Your task to perform on an android device: turn on wifi Image 0: 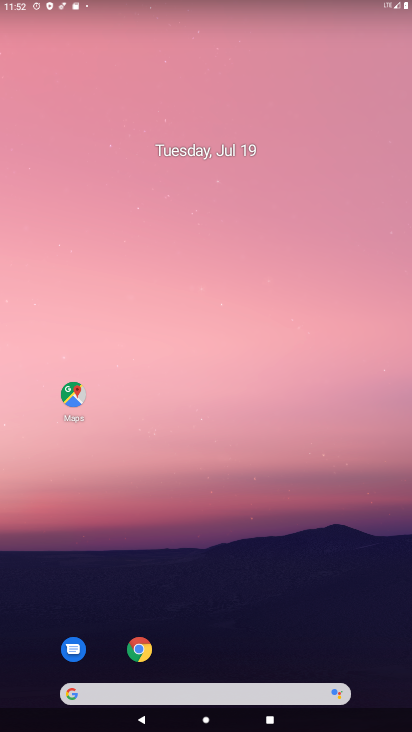
Step 0: drag from (222, 730) to (213, 367)
Your task to perform on an android device: turn on wifi Image 1: 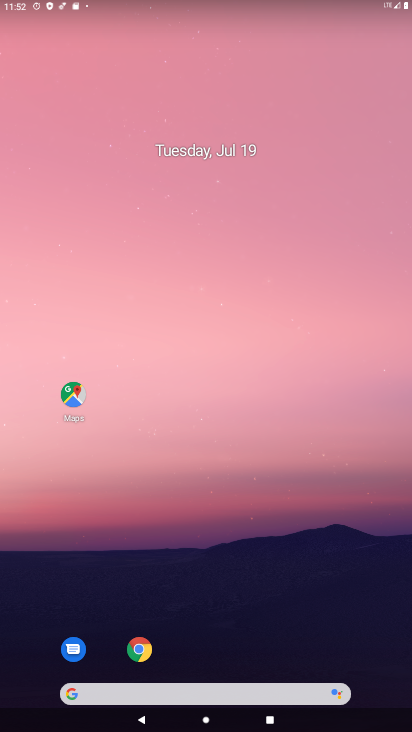
Step 1: drag from (234, 724) to (222, 185)
Your task to perform on an android device: turn on wifi Image 2: 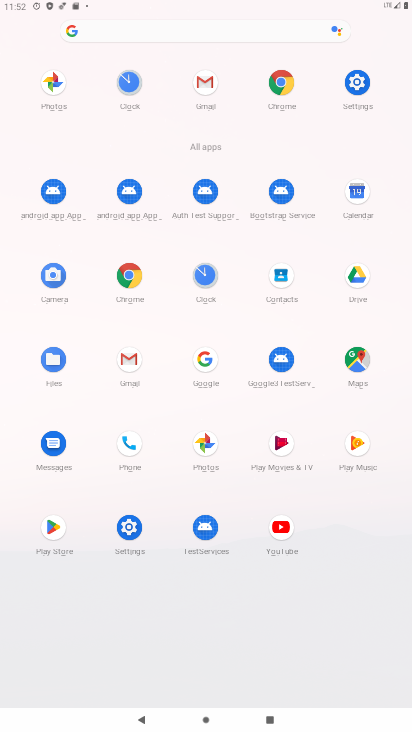
Step 2: click (362, 82)
Your task to perform on an android device: turn on wifi Image 3: 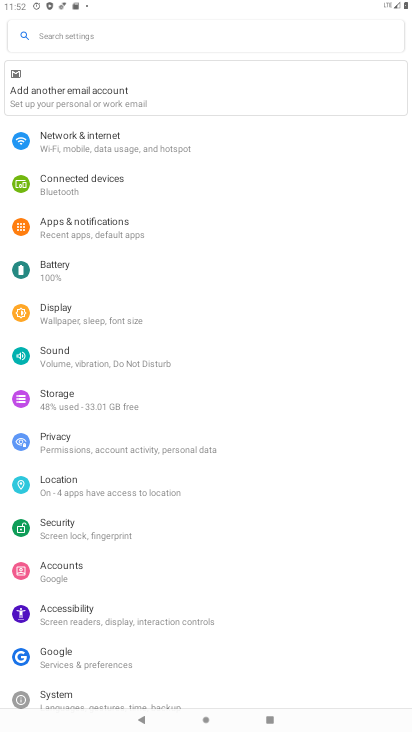
Step 3: click (81, 137)
Your task to perform on an android device: turn on wifi Image 4: 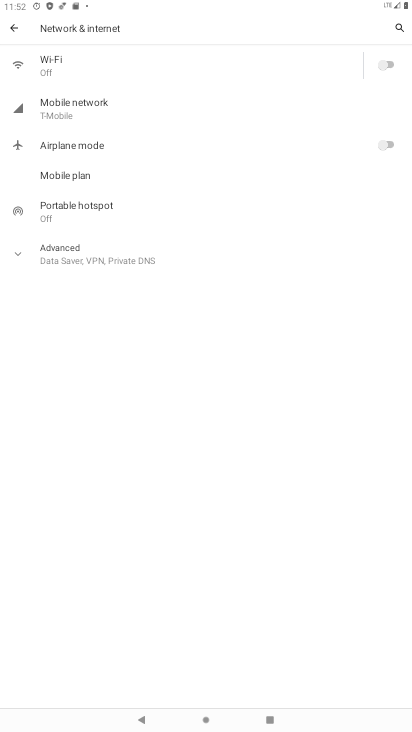
Step 4: click (391, 65)
Your task to perform on an android device: turn on wifi Image 5: 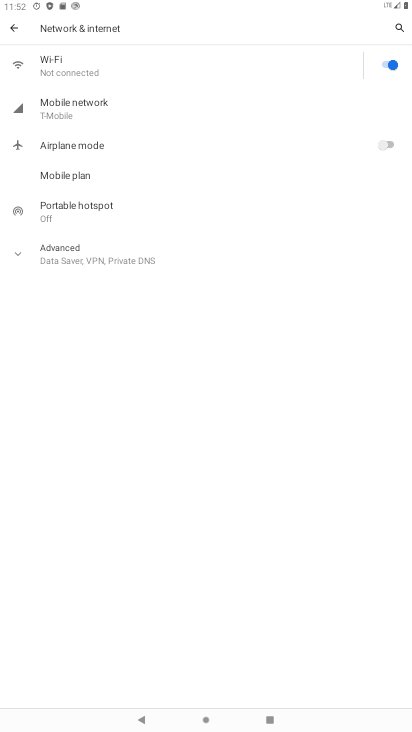
Step 5: task complete